Your task to perform on an android device: all mails in gmail Image 0: 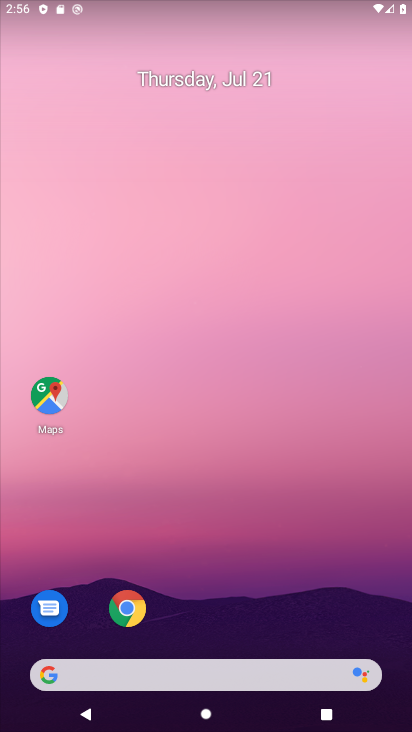
Step 0: drag from (274, 664) to (355, 11)
Your task to perform on an android device: all mails in gmail Image 1: 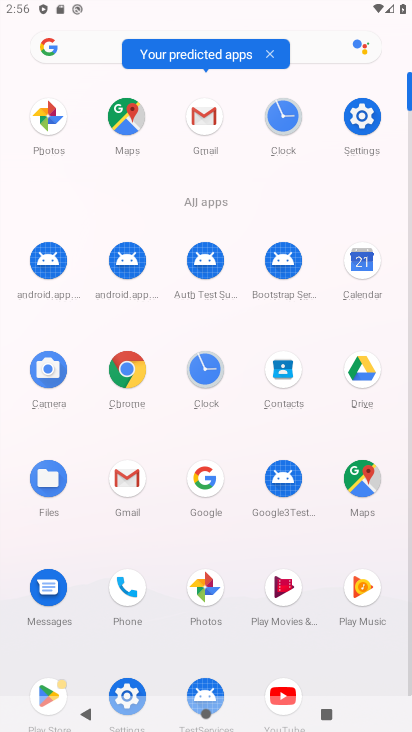
Step 1: click (208, 118)
Your task to perform on an android device: all mails in gmail Image 2: 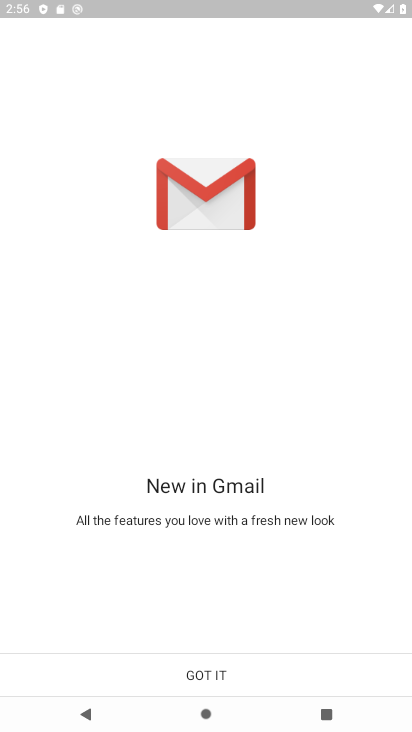
Step 2: click (208, 663)
Your task to perform on an android device: all mails in gmail Image 3: 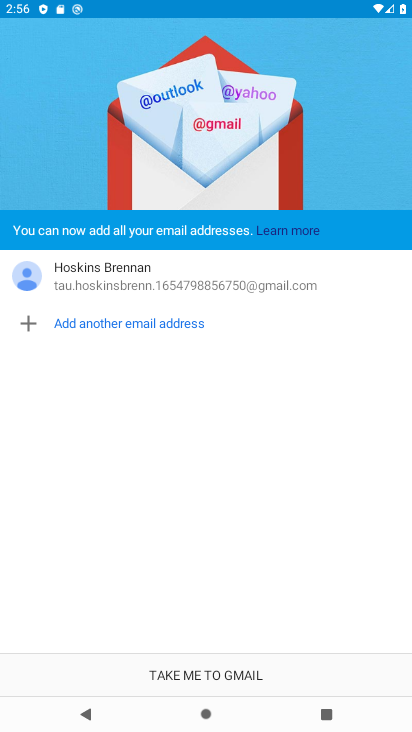
Step 3: click (279, 664)
Your task to perform on an android device: all mails in gmail Image 4: 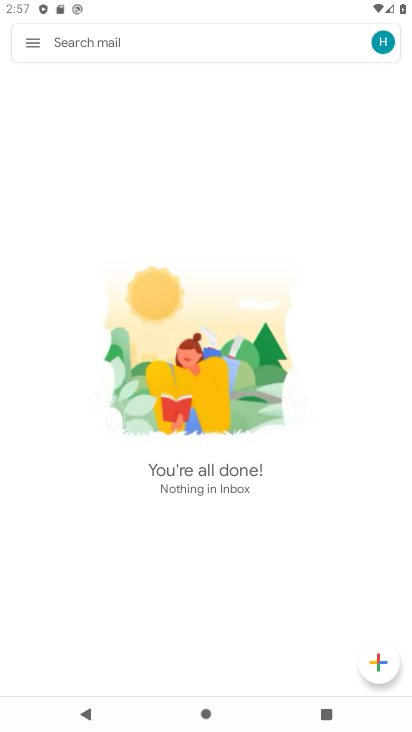
Step 4: click (46, 19)
Your task to perform on an android device: all mails in gmail Image 5: 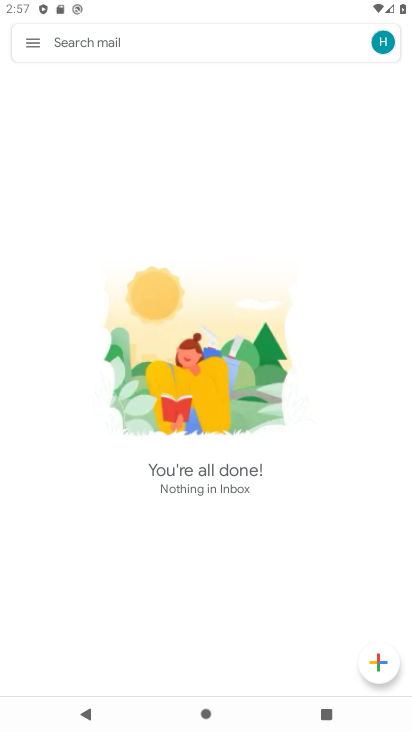
Step 5: click (36, 48)
Your task to perform on an android device: all mails in gmail Image 6: 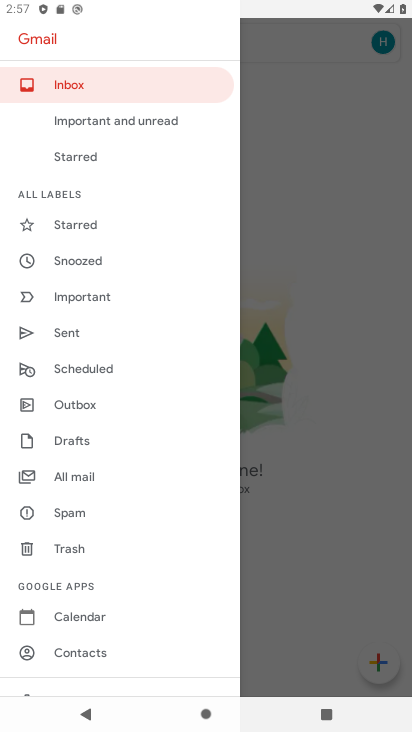
Step 6: click (81, 473)
Your task to perform on an android device: all mails in gmail Image 7: 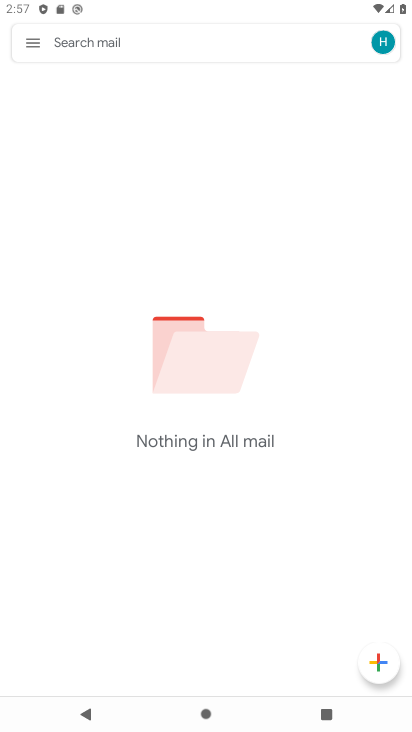
Step 7: task complete